Your task to perform on an android device: See recent photos Image 0: 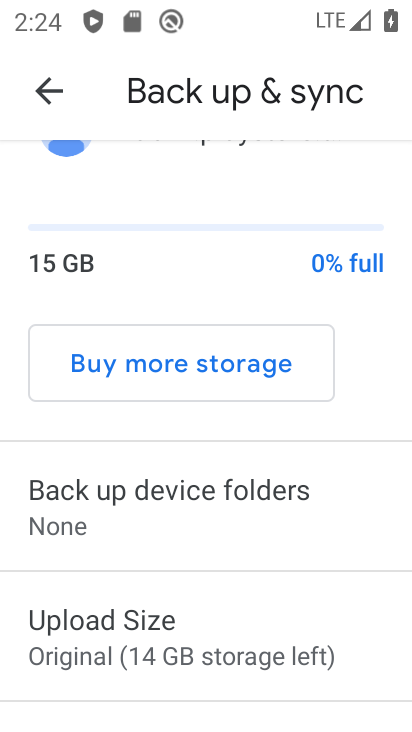
Step 0: press home button
Your task to perform on an android device: See recent photos Image 1: 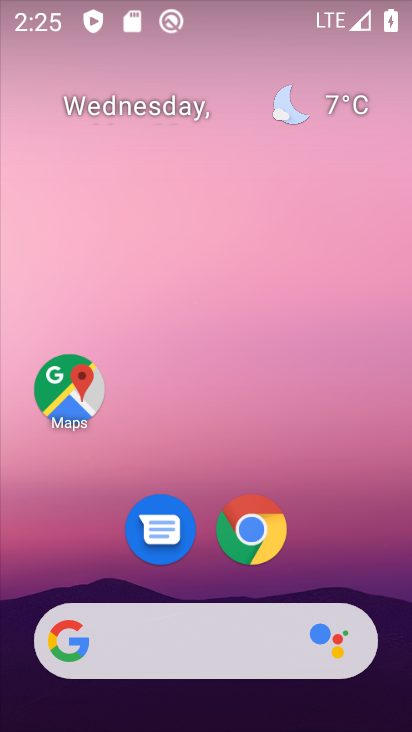
Step 1: drag from (355, 499) to (268, 135)
Your task to perform on an android device: See recent photos Image 2: 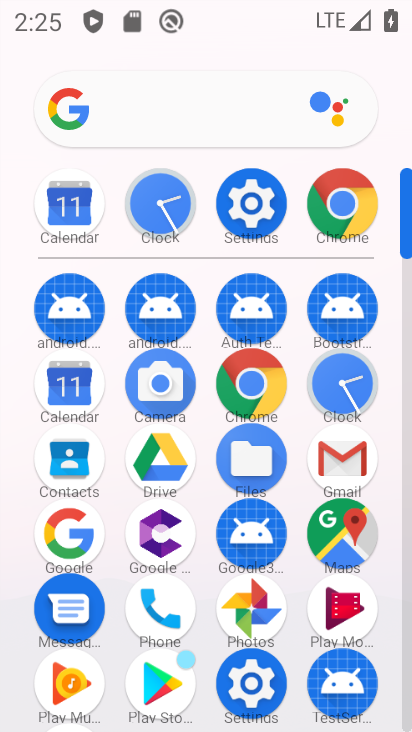
Step 2: click (253, 601)
Your task to perform on an android device: See recent photos Image 3: 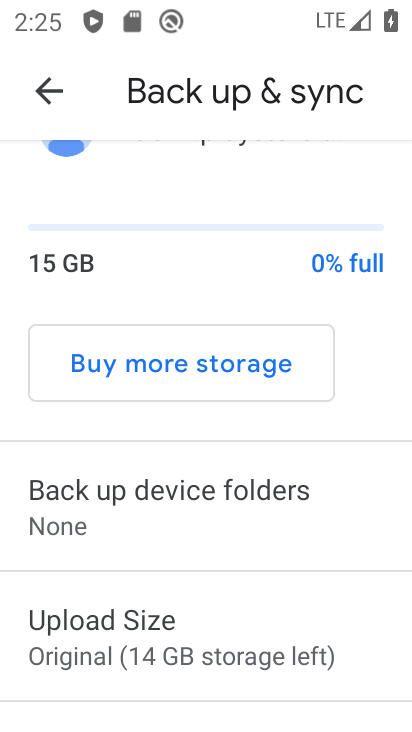
Step 3: click (35, 111)
Your task to perform on an android device: See recent photos Image 4: 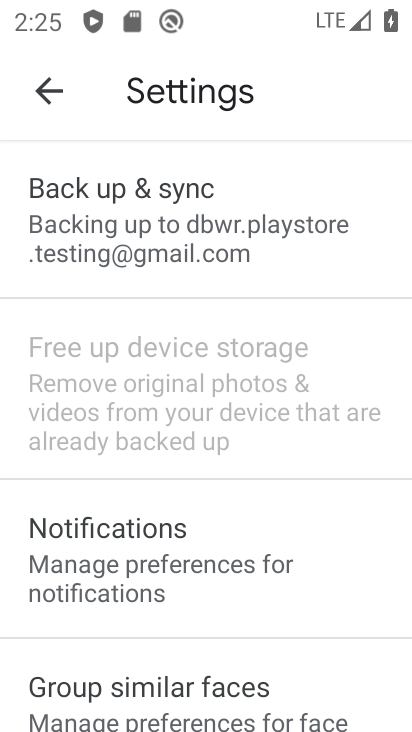
Step 4: click (36, 110)
Your task to perform on an android device: See recent photos Image 5: 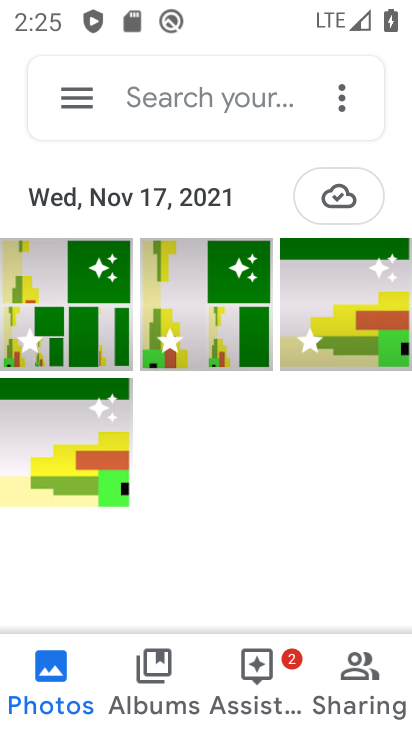
Step 5: click (50, 301)
Your task to perform on an android device: See recent photos Image 6: 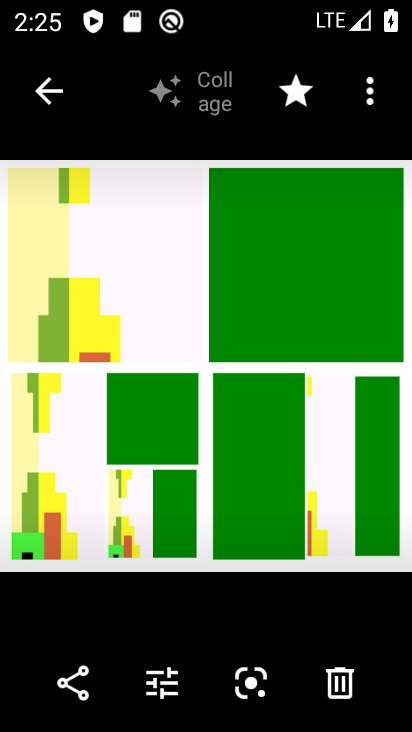
Step 6: task complete